Your task to perform on an android device: change the clock display to digital Image 0: 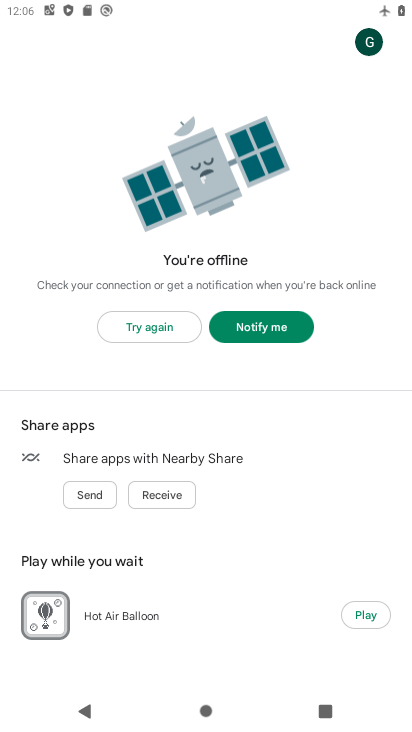
Step 0: press home button
Your task to perform on an android device: change the clock display to digital Image 1: 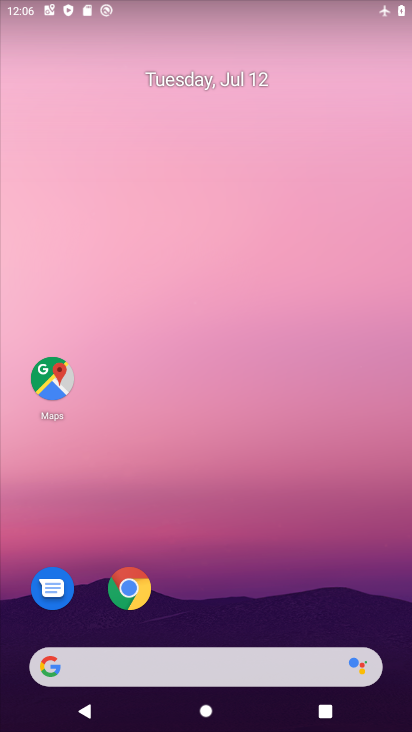
Step 1: drag from (242, 587) to (272, 88)
Your task to perform on an android device: change the clock display to digital Image 2: 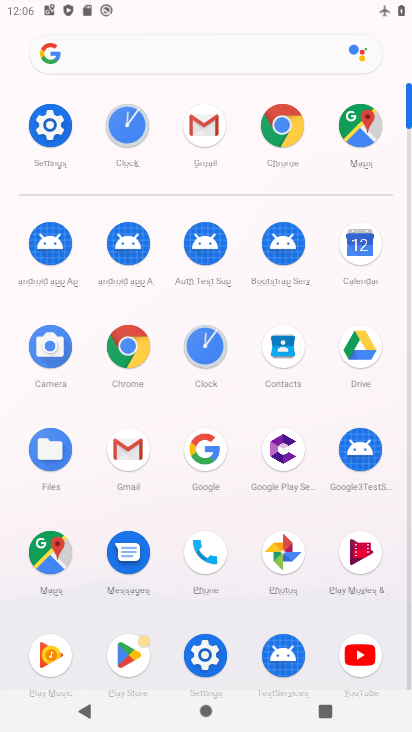
Step 2: click (41, 130)
Your task to perform on an android device: change the clock display to digital Image 3: 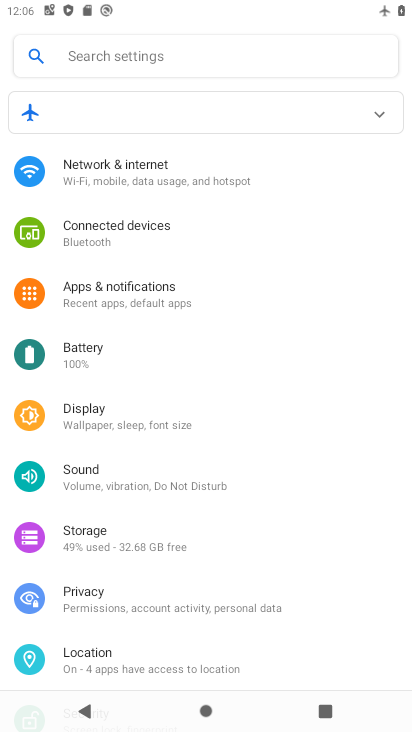
Step 3: task complete